Your task to perform on an android device: open app "Etsy: Buy & Sell Unique Items" (install if not already installed), go to login, and select forgot password Image 0: 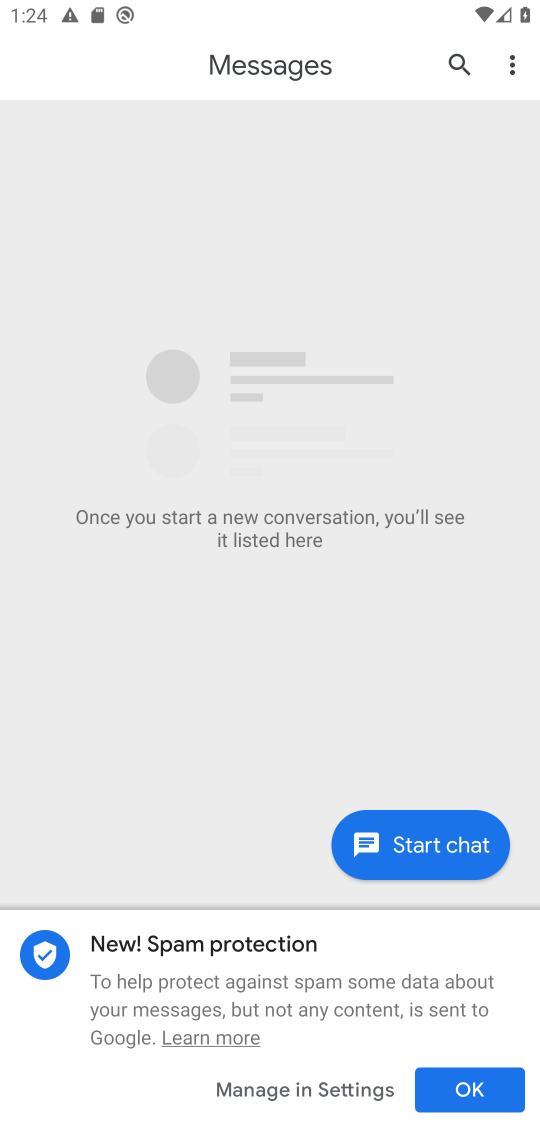
Step 0: press home button
Your task to perform on an android device: open app "Etsy: Buy & Sell Unique Items" (install if not already installed), go to login, and select forgot password Image 1: 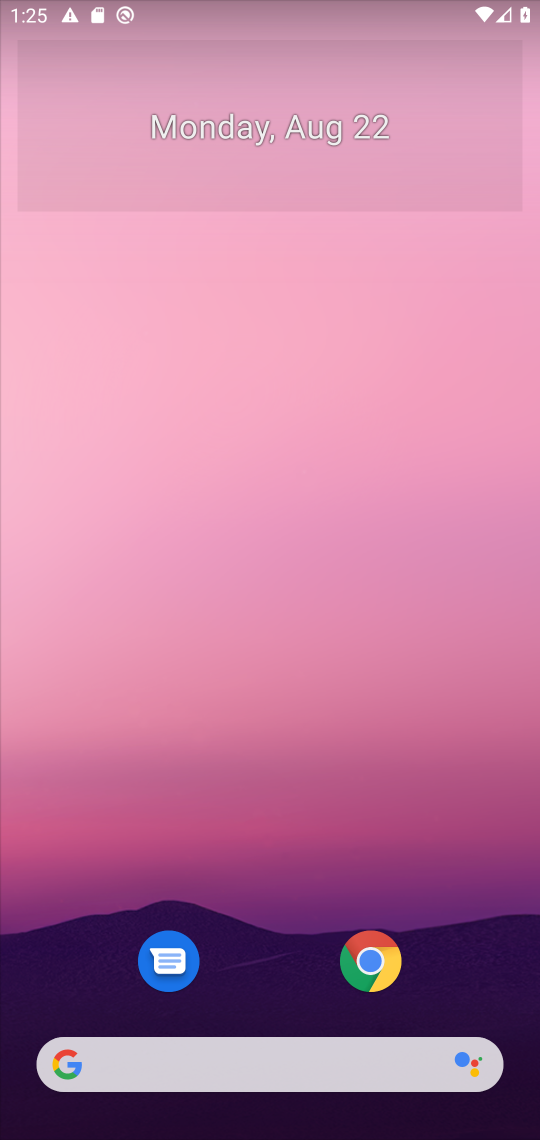
Step 1: press home button
Your task to perform on an android device: open app "Etsy: Buy & Sell Unique Items" (install if not already installed), go to login, and select forgot password Image 2: 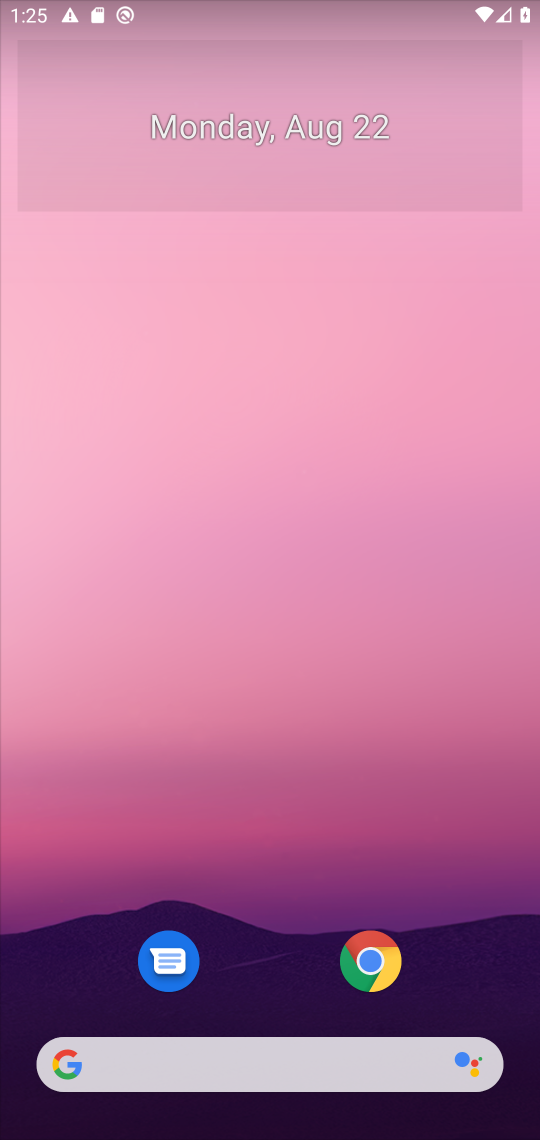
Step 2: drag from (499, 952) to (512, 184)
Your task to perform on an android device: open app "Etsy: Buy & Sell Unique Items" (install if not already installed), go to login, and select forgot password Image 3: 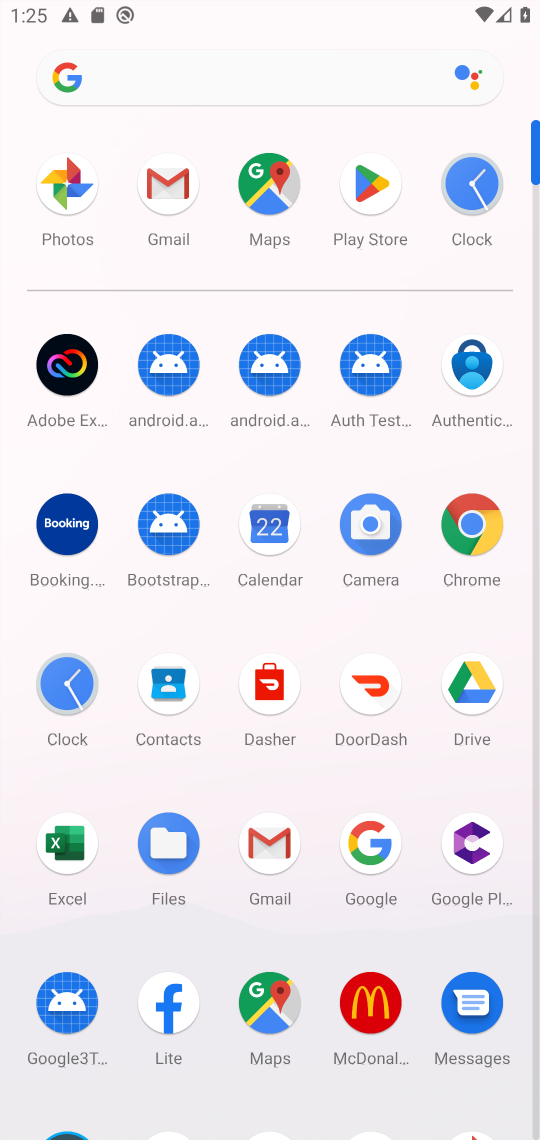
Step 3: click (360, 183)
Your task to perform on an android device: open app "Etsy: Buy & Sell Unique Items" (install if not already installed), go to login, and select forgot password Image 4: 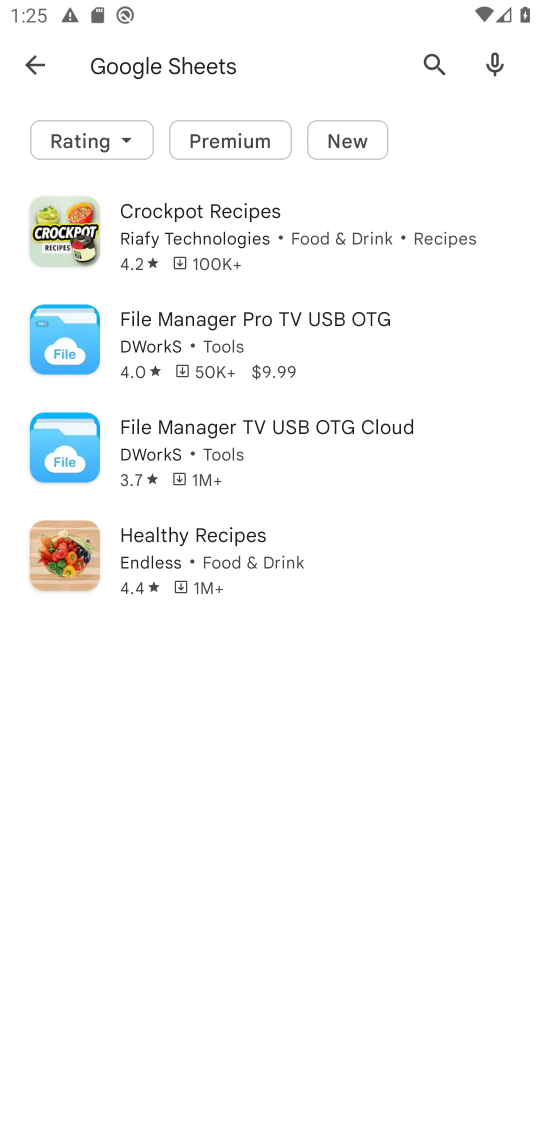
Step 4: press back button
Your task to perform on an android device: open app "Etsy: Buy & Sell Unique Items" (install if not already installed), go to login, and select forgot password Image 5: 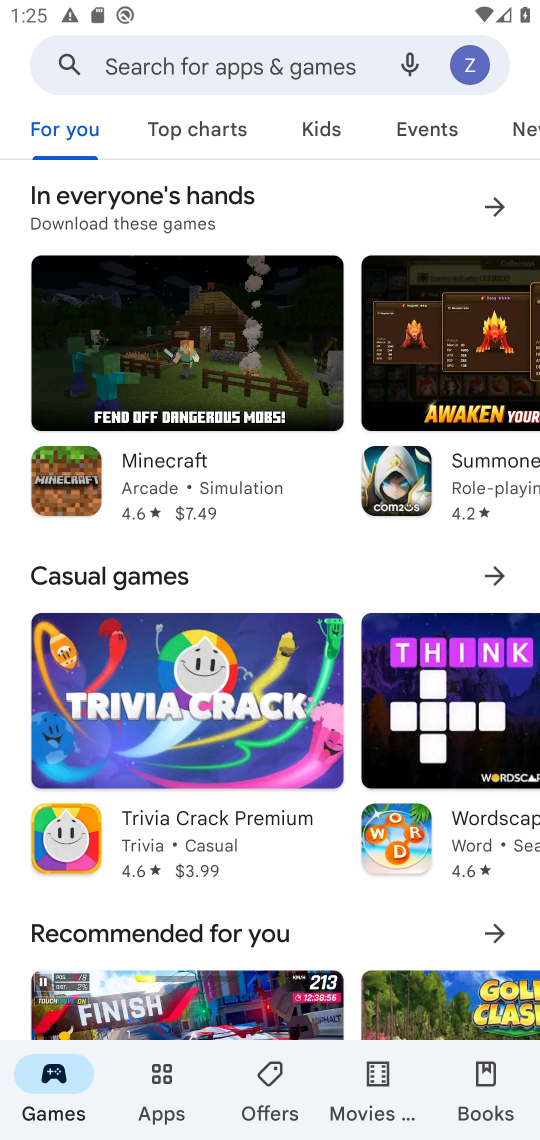
Step 5: click (229, 58)
Your task to perform on an android device: open app "Etsy: Buy & Sell Unique Items" (install if not already installed), go to login, and select forgot password Image 6: 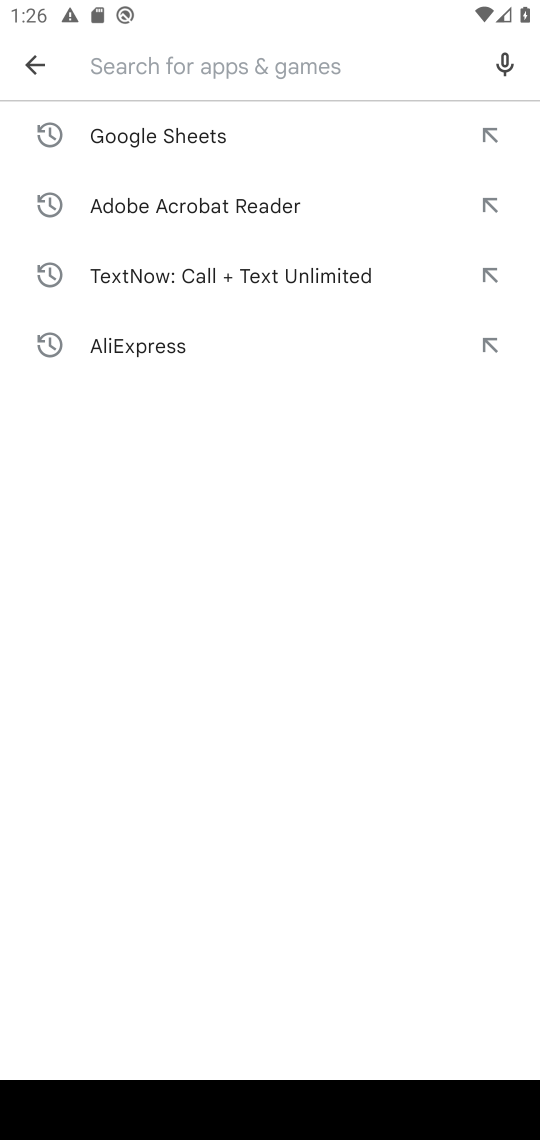
Step 6: type "Etsy: Buy & Sell Unique Items"
Your task to perform on an android device: open app "Etsy: Buy & Sell Unique Items" (install if not already installed), go to login, and select forgot password Image 7: 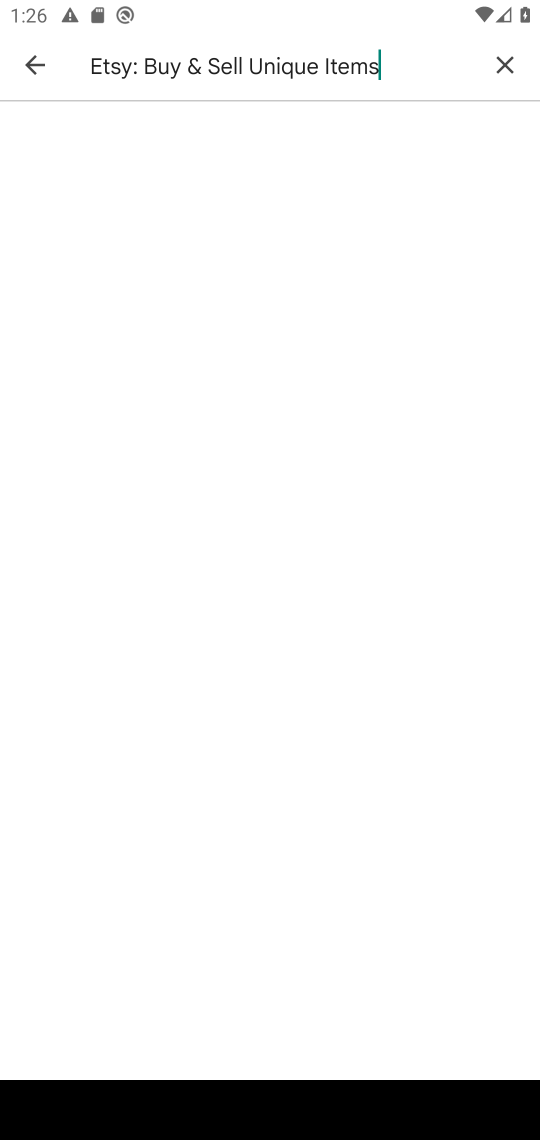
Step 7: press enter
Your task to perform on an android device: open app "Etsy: Buy & Sell Unique Items" (install if not already installed), go to login, and select forgot password Image 8: 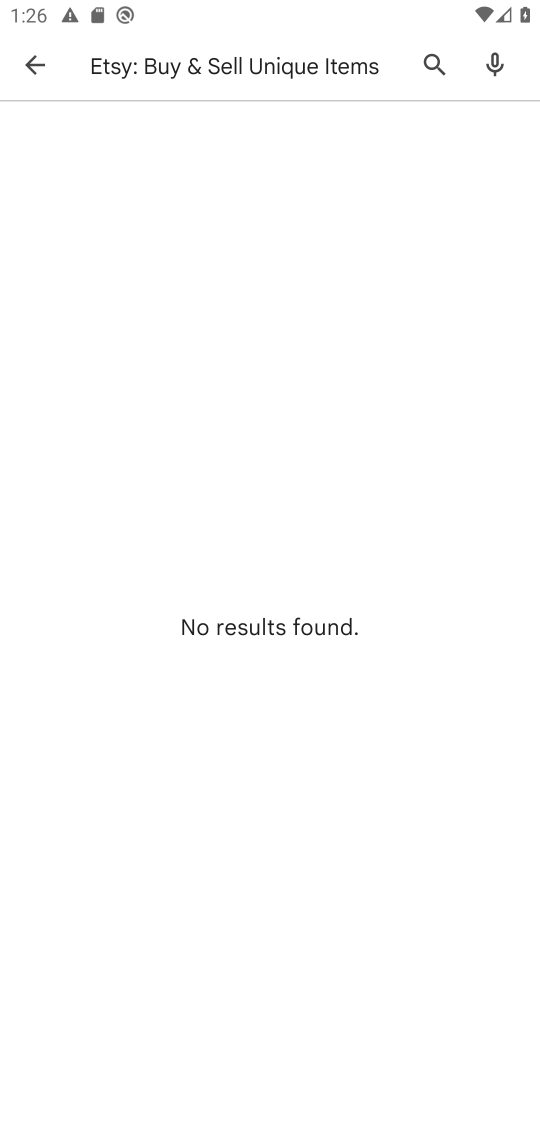
Step 8: task complete